Your task to perform on an android device: Clear all items from cart on amazon.com. Add "logitech g pro" to the cart on amazon.com Image 0: 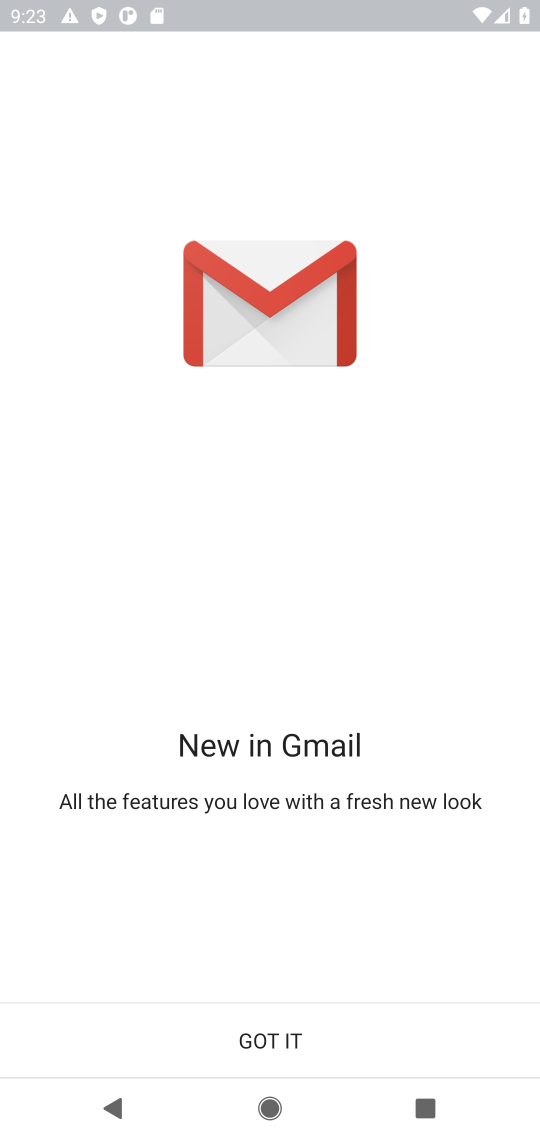
Step 0: press home button
Your task to perform on an android device: Clear all items from cart on amazon.com. Add "logitech g pro" to the cart on amazon.com Image 1: 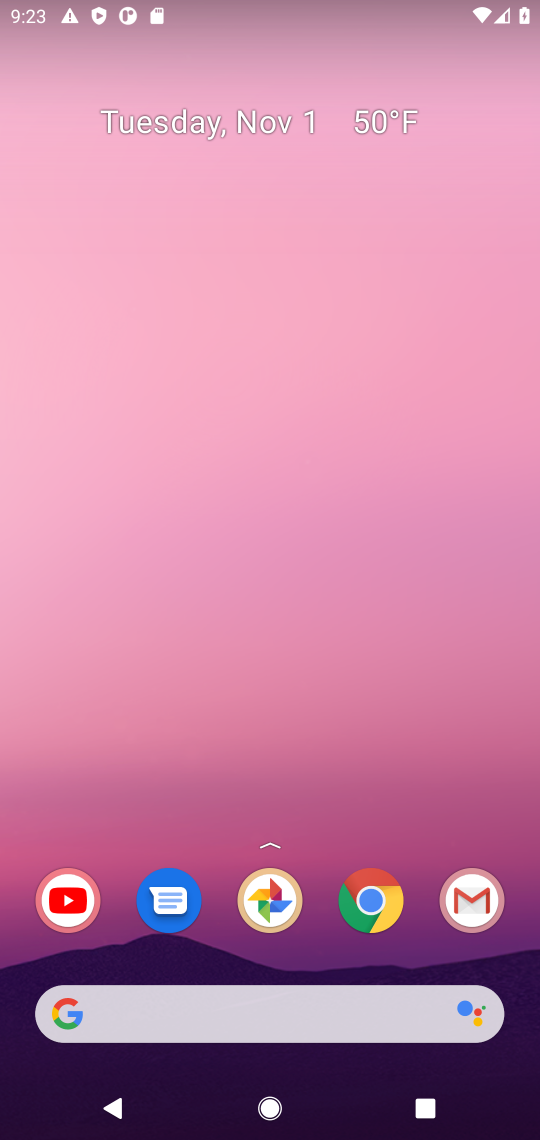
Step 1: click (382, 885)
Your task to perform on an android device: Clear all items from cart on amazon.com. Add "logitech g pro" to the cart on amazon.com Image 2: 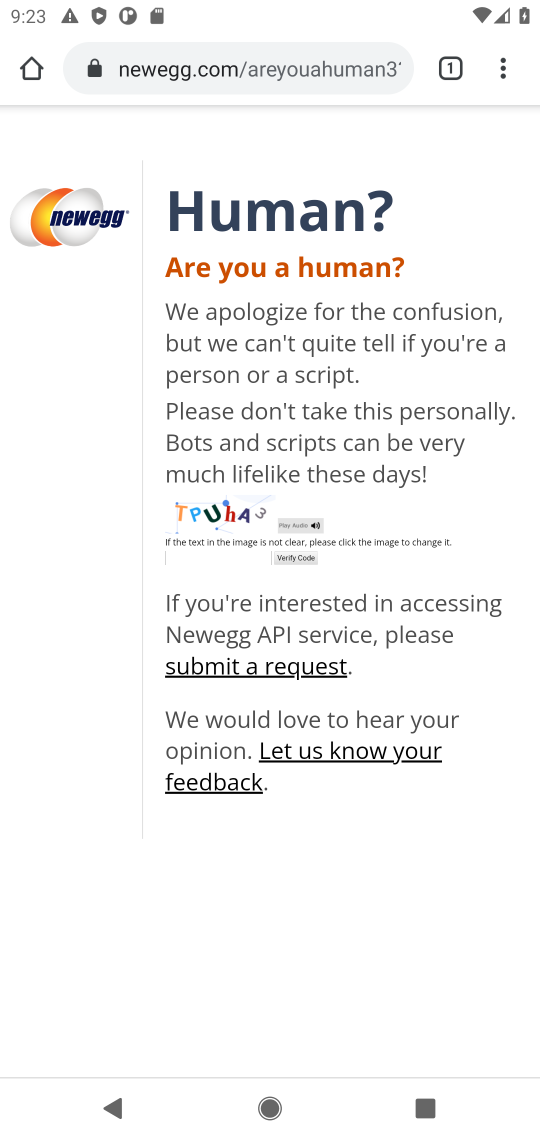
Step 2: click (252, 75)
Your task to perform on an android device: Clear all items from cart on amazon.com. Add "logitech g pro" to the cart on amazon.com Image 3: 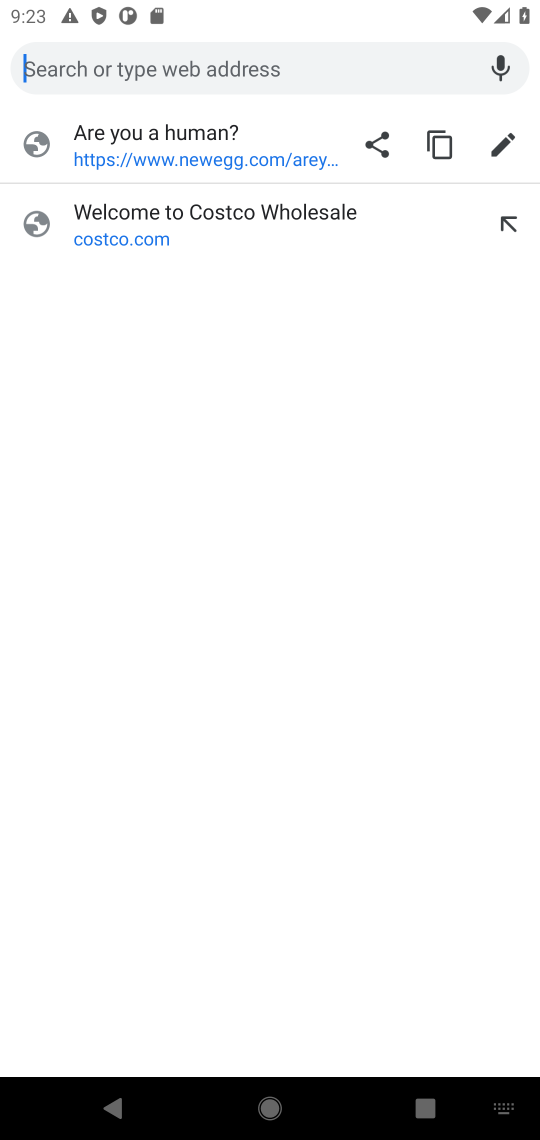
Step 3: type "amazon"
Your task to perform on an android device: Clear all items from cart on amazon.com. Add "logitech g pro" to the cart on amazon.com Image 4: 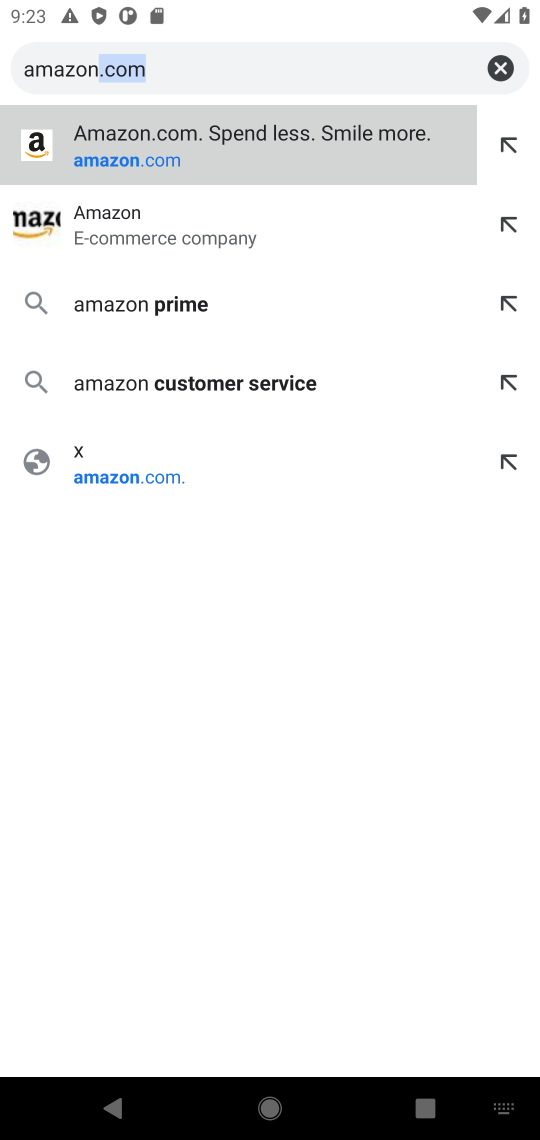
Step 4: click (242, 223)
Your task to perform on an android device: Clear all items from cart on amazon.com. Add "logitech g pro" to the cart on amazon.com Image 5: 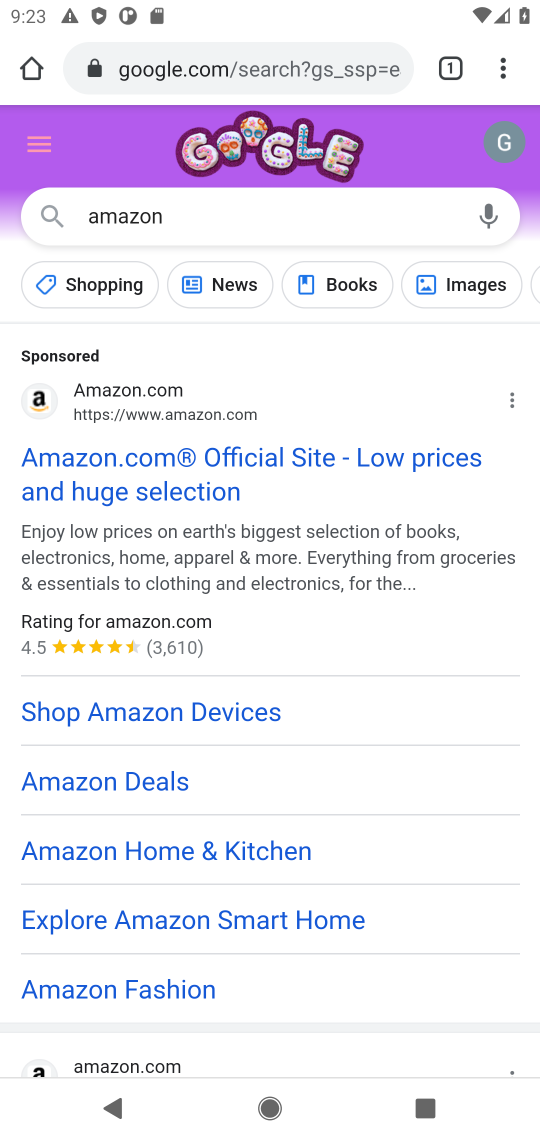
Step 5: click (95, 469)
Your task to perform on an android device: Clear all items from cart on amazon.com. Add "logitech g pro" to the cart on amazon.com Image 6: 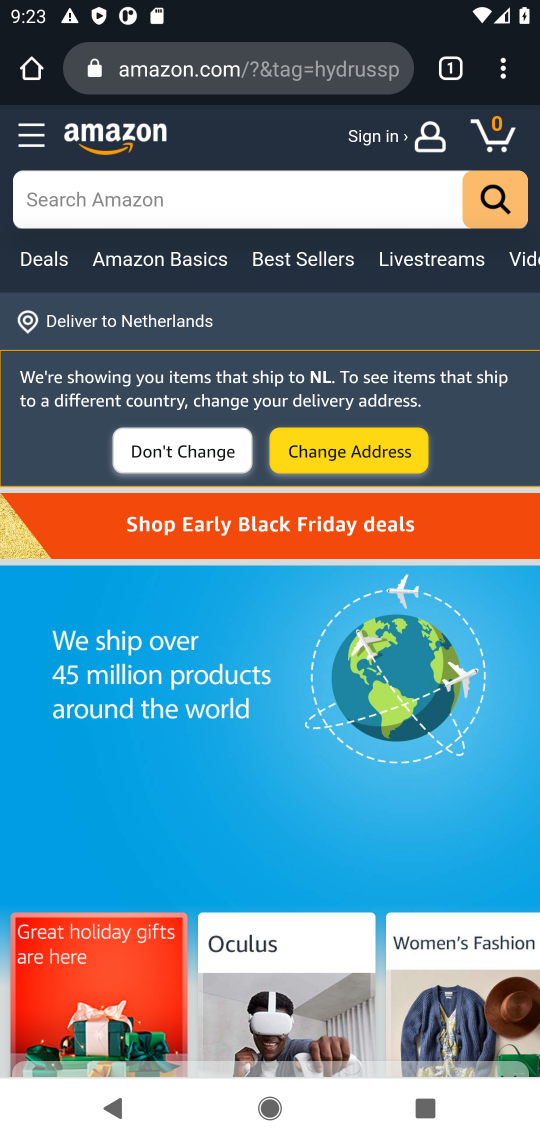
Step 6: click (513, 134)
Your task to perform on an android device: Clear all items from cart on amazon.com. Add "logitech g pro" to the cart on amazon.com Image 7: 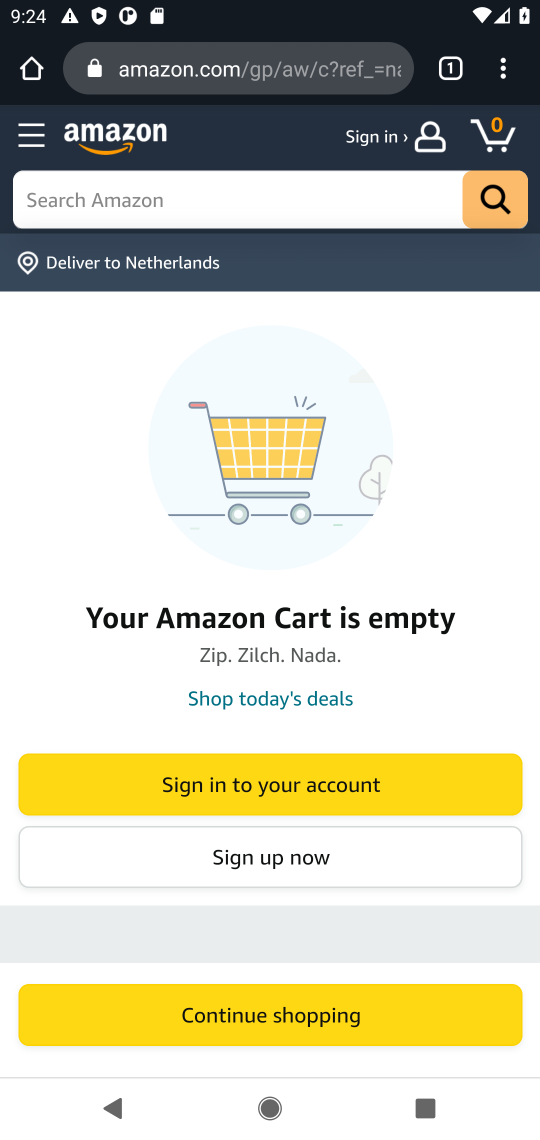
Step 7: click (248, 192)
Your task to perform on an android device: Clear all items from cart on amazon.com. Add "logitech g pro" to the cart on amazon.com Image 8: 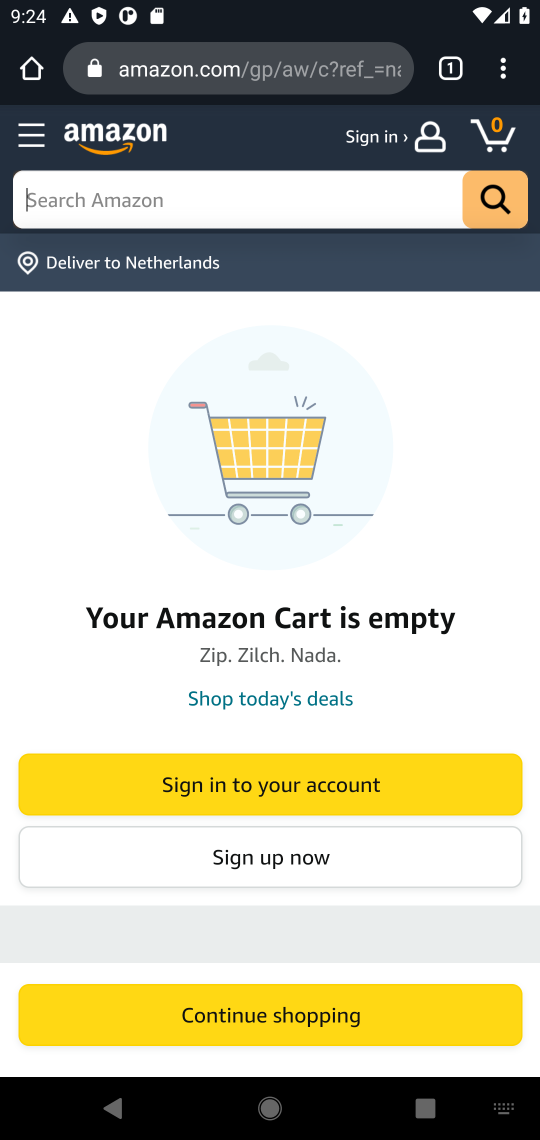
Step 8: type "logitech g pro"
Your task to perform on an android device: Clear all items from cart on amazon.com. Add "logitech g pro" to the cart on amazon.com Image 9: 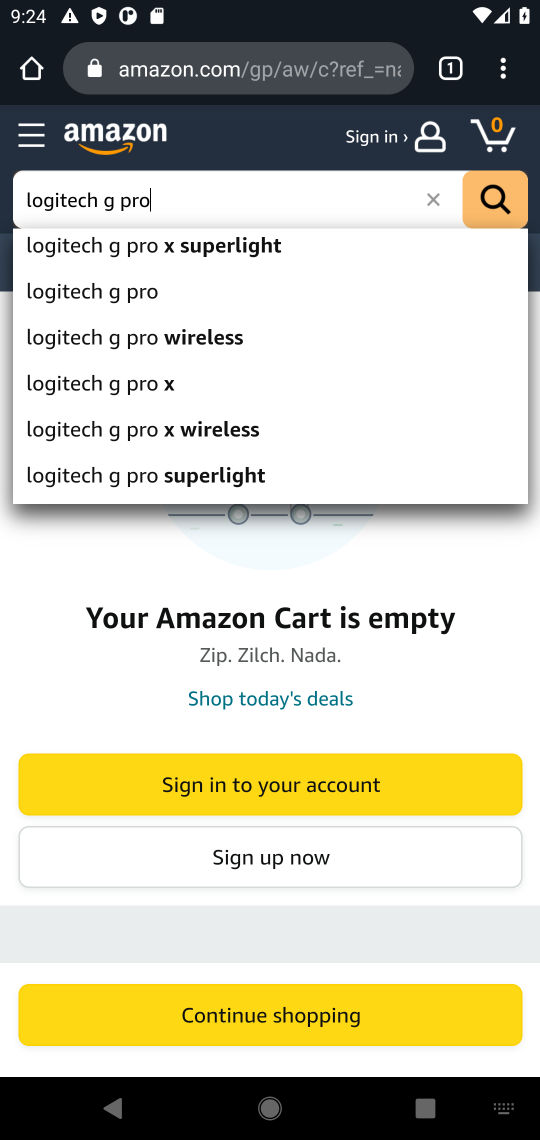
Step 9: click (42, 284)
Your task to perform on an android device: Clear all items from cart on amazon.com. Add "logitech g pro" to the cart on amazon.com Image 10: 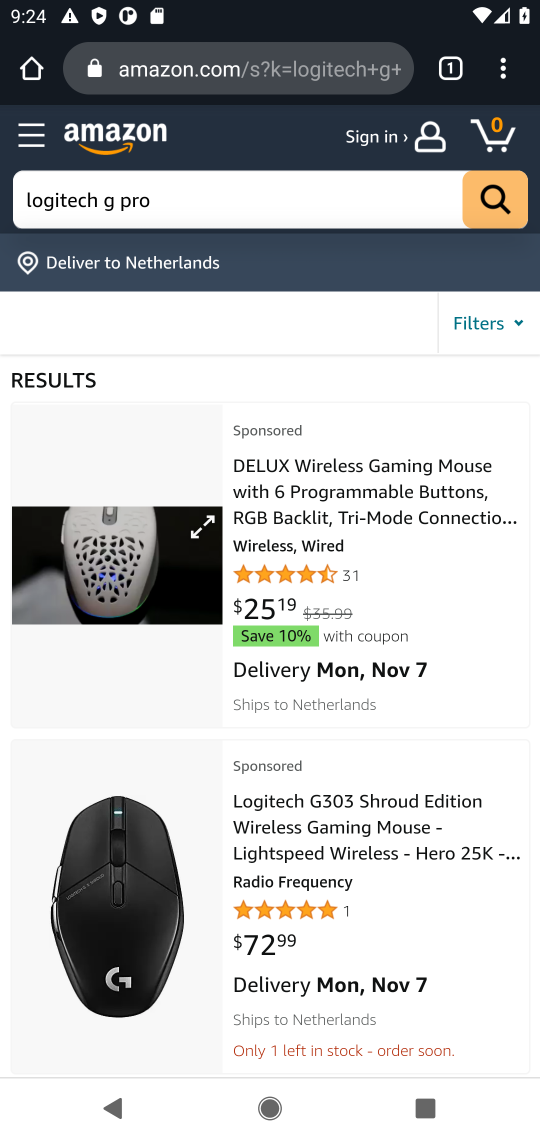
Step 10: drag from (242, 1067) to (327, 443)
Your task to perform on an android device: Clear all items from cart on amazon.com. Add "logitech g pro" to the cart on amazon.com Image 11: 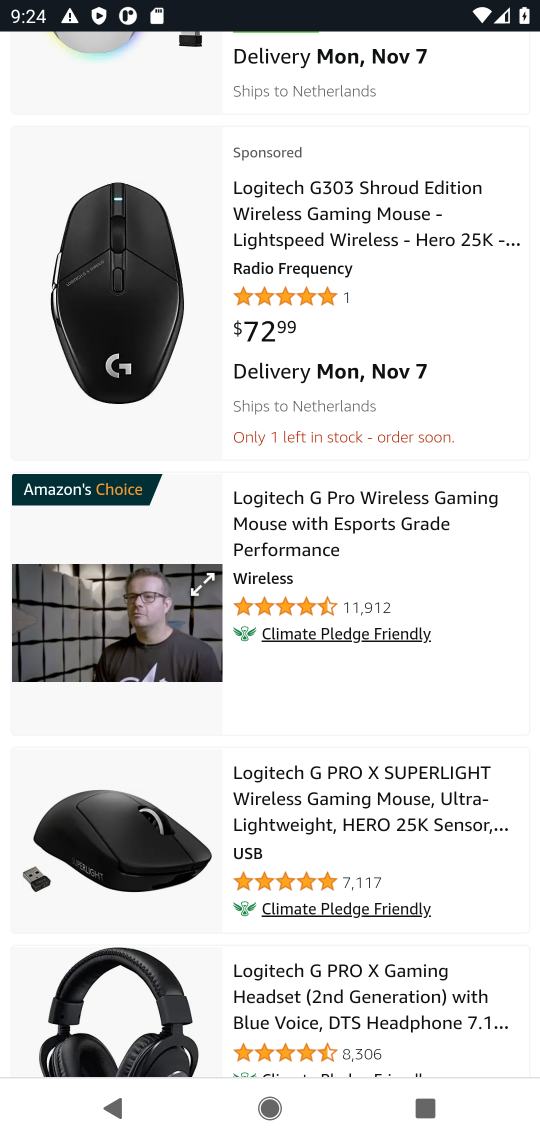
Step 11: click (315, 488)
Your task to perform on an android device: Clear all items from cart on amazon.com. Add "logitech g pro" to the cart on amazon.com Image 12: 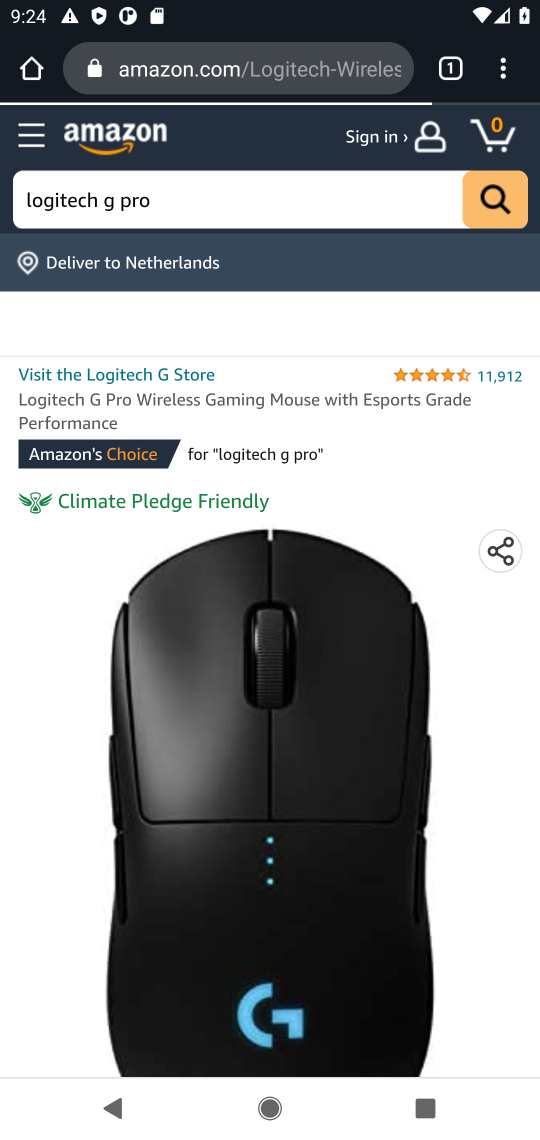
Step 12: drag from (286, 976) to (332, 424)
Your task to perform on an android device: Clear all items from cart on amazon.com. Add "logitech g pro" to the cart on amazon.com Image 13: 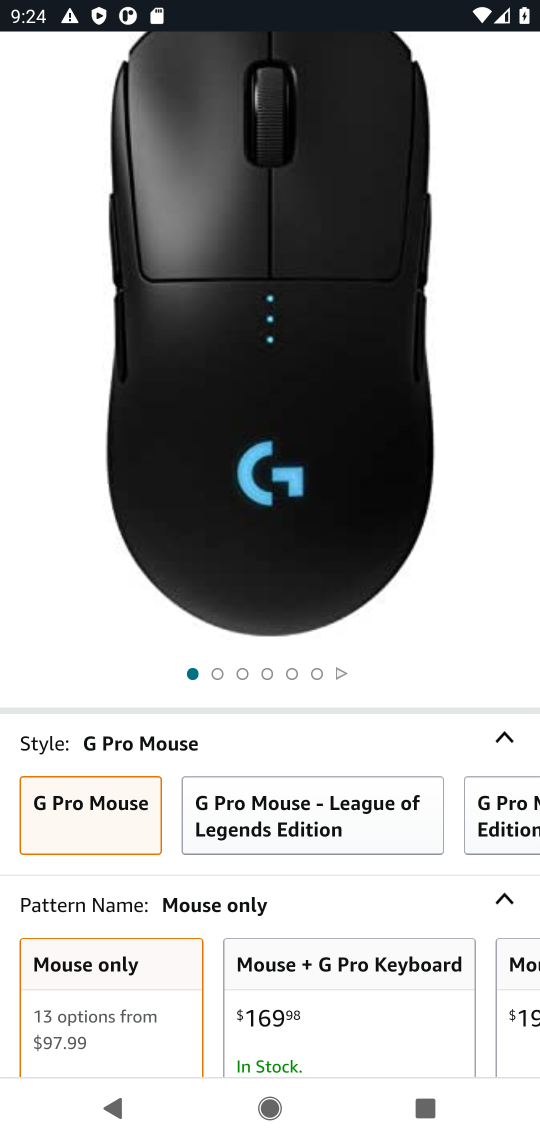
Step 13: drag from (307, 769) to (296, 294)
Your task to perform on an android device: Clear all items from cart on amazon.com. Add "logitech g pro" to the cart on amazon.com Image 14: 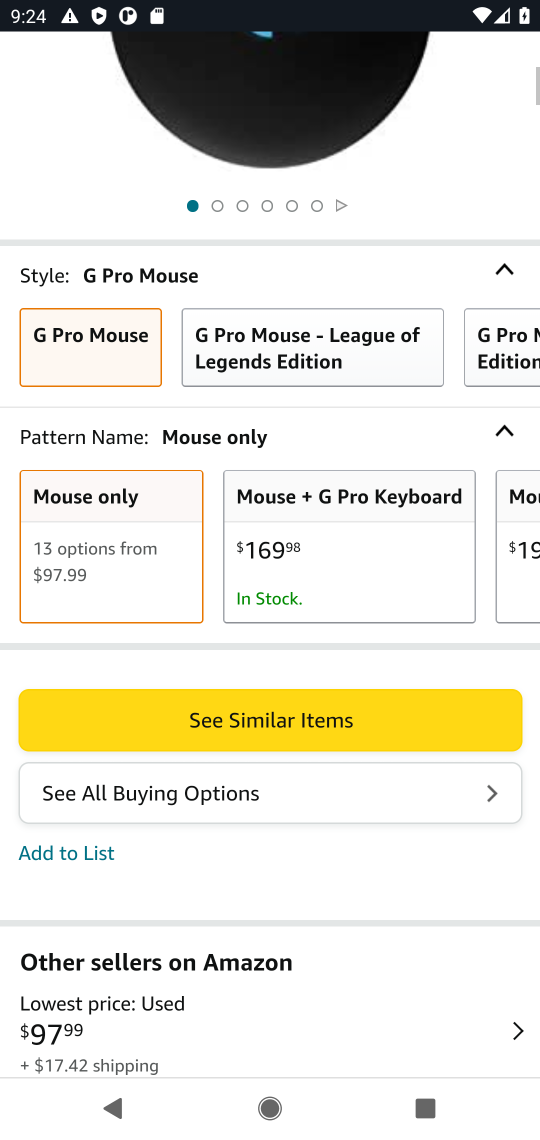
Step 14: click (296, 294)
Your task to perform on an android device: Clear all items from cart on amazon.com. Add "logitech g pro" to the cart on amazon.com Image 15: 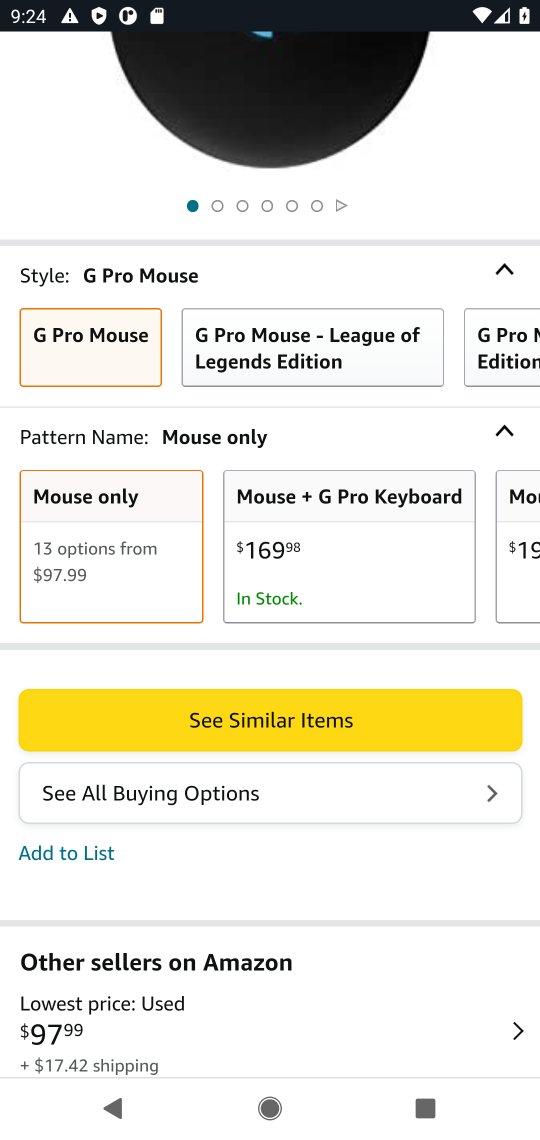
Step 15: click (239, 720)
Your task to perform on an android device: Clear all items from cart on amazon.com. Add "logitech g pro" to the cart on amazon.com Image 16: 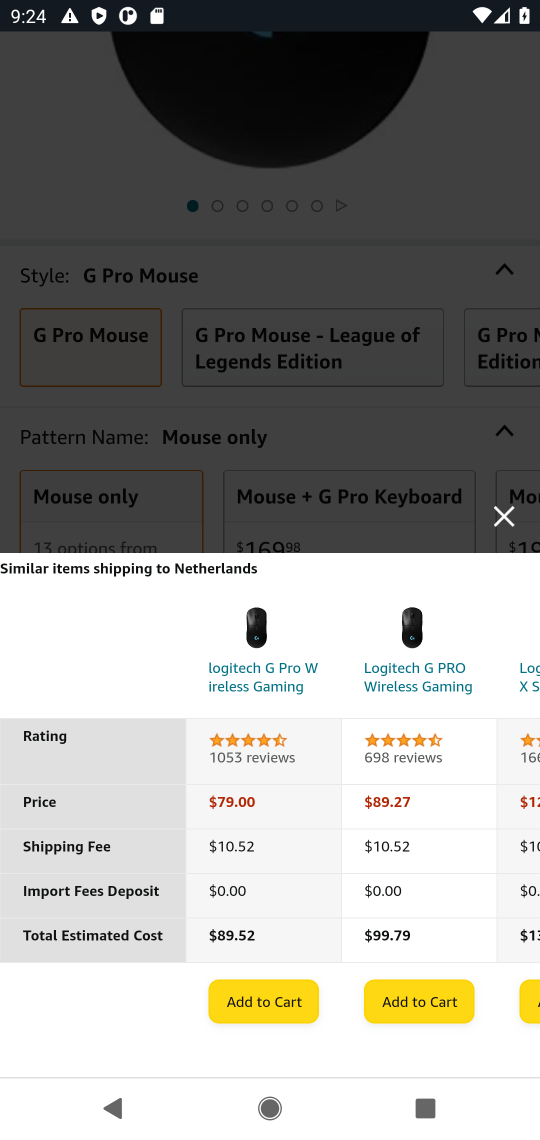
Step 16: click (266, 1017)
Your task to perform on an android device: Clear all items from cart on amazon.com. Add "logitech g pro" to the cart on amazon.com Image 17: 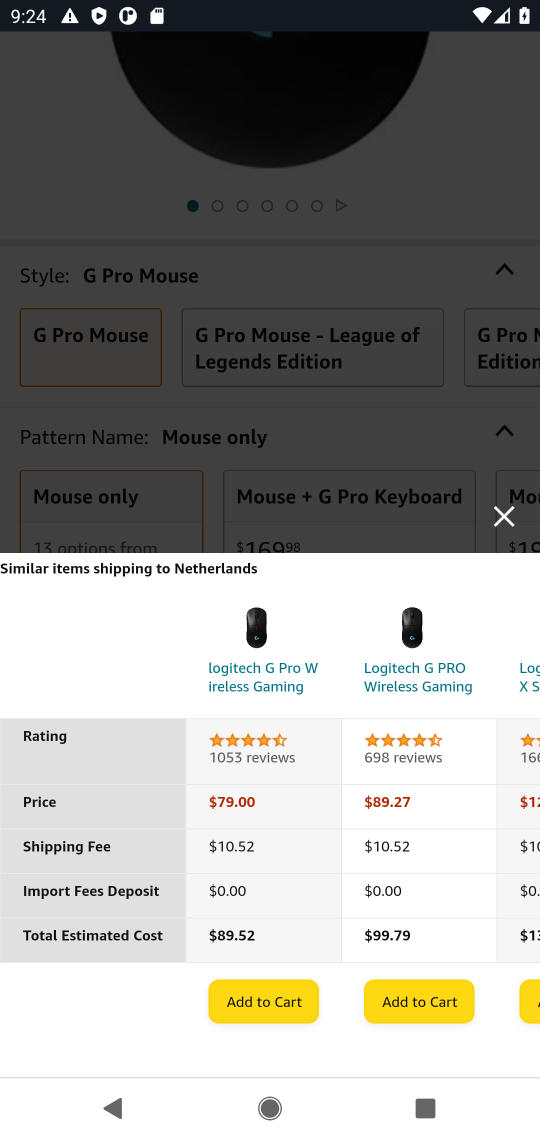
Step 17: click (241, 986)
Your task to perform on an android device: Clear all items from cart on amazon.com. Add "logitech g pro" to the cart on amazon.com Image 18: 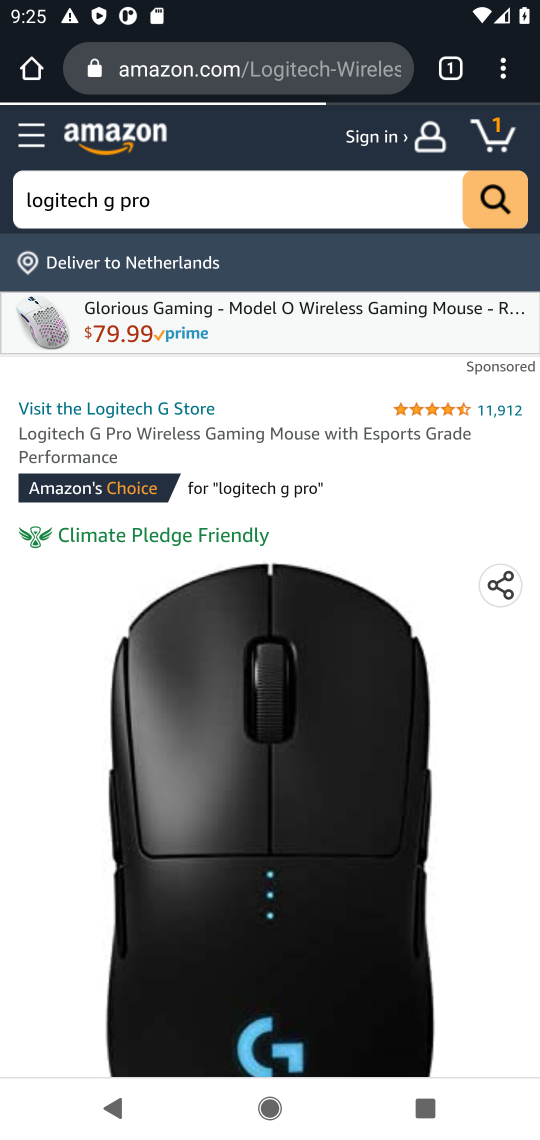
Step 18: task complete